Your task to perform on an android device: clear history in the chrome app Image 0: 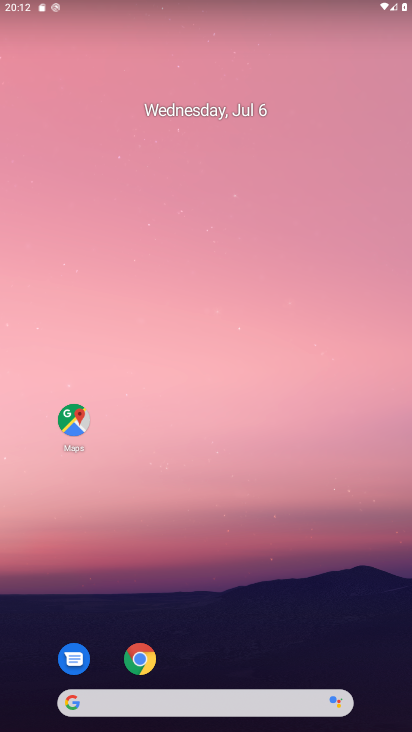
Step 0: click (137, 652)
Your task to perform on an android device: clear history in the chrome app Image 1: 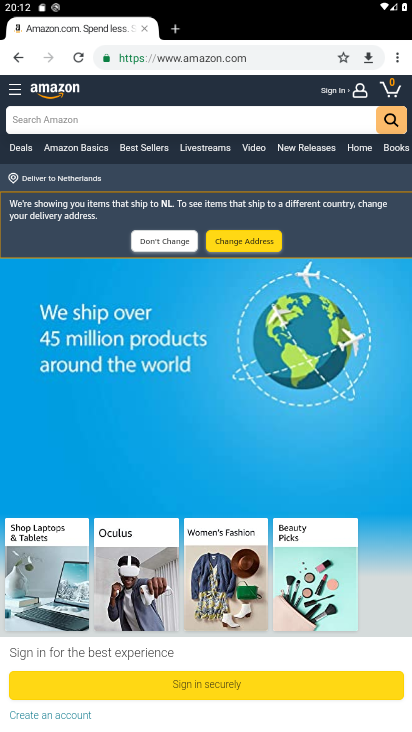
Step 1: click (395, 61)
Your task to perform on an android device: clear history in the chrome app Image 2: 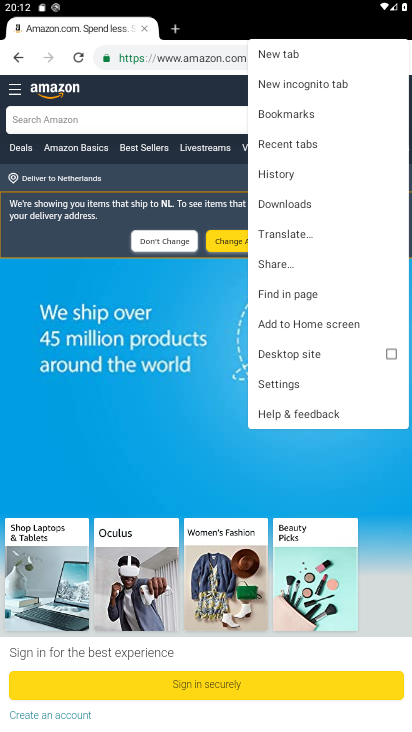
Step 2: click (276, 176)
Your task to perform on an android device: clear history in the chrome app Image 3: 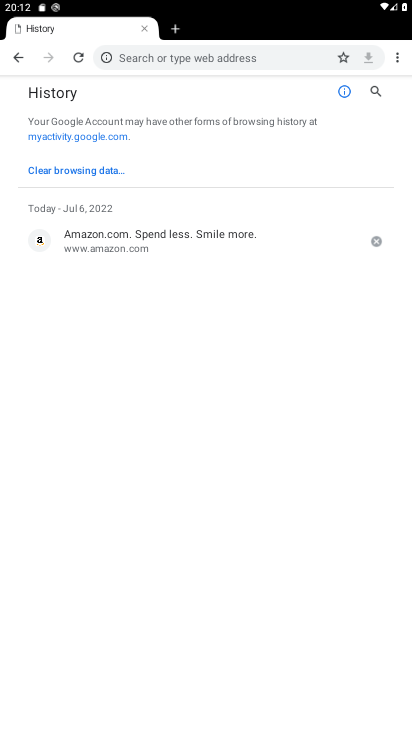
Step 3: click (78, 169)
Your task to perform on an android device: clear history in the chrome app Image 4: 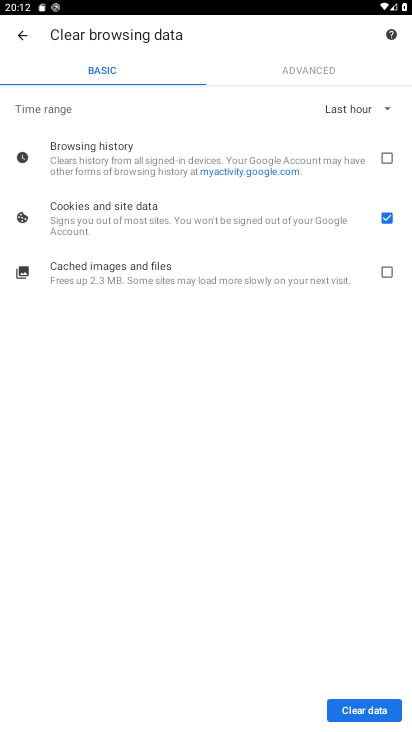
Step 4: click (382, 157)
Your task to perform on an android device: clear history in the chrome app Image 5: 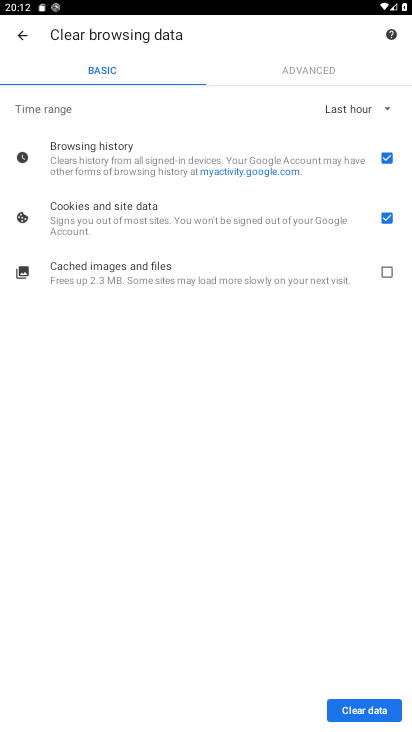
Step 5: click (387, 216)
Your task to perform on an android device: clear history in the chrome app Image 6: 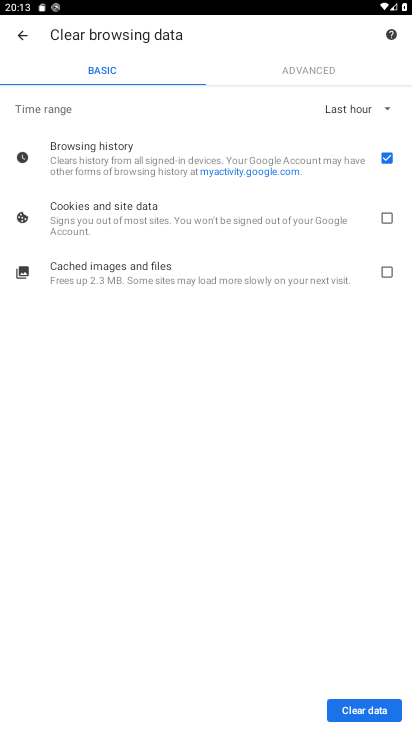
Step 6: click (352, 715)
Your task to perform on an android device: clear history in the chrome app Image 7: 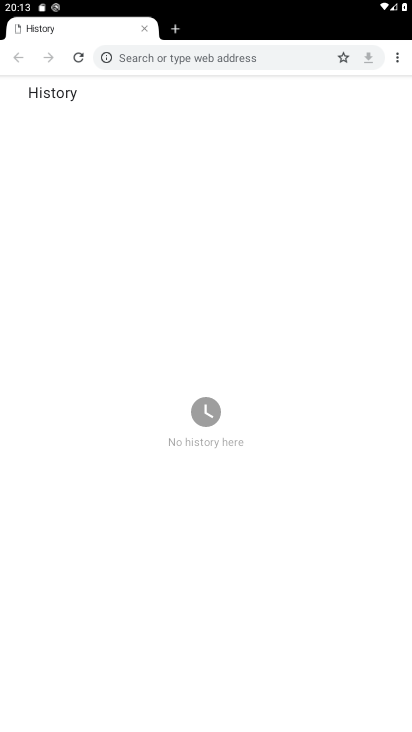
Step 7: task complete